Your task to perform on an android device: turn off translation in the chrome app Image 0: 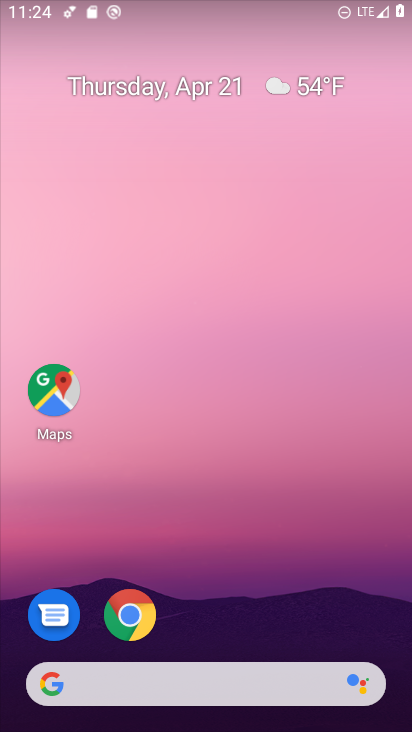
Step 0: click (122, 617)
Your task to perform on an android device: turn off translation in the chrome app Image 1: 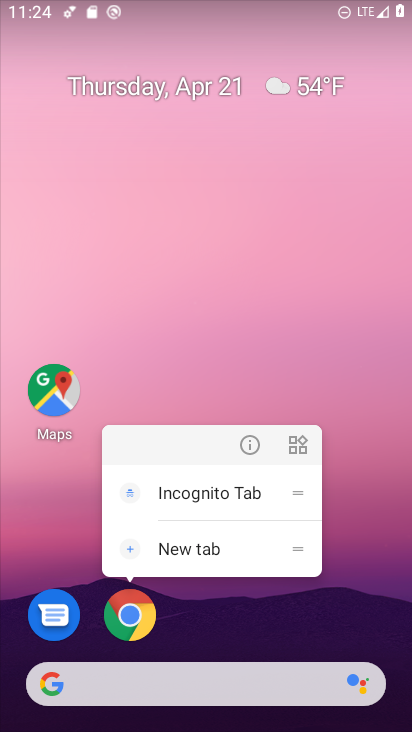
Step 1: click (127, 622)
Your task to perform on an android device: turn off translation in the chrome app Image 2: 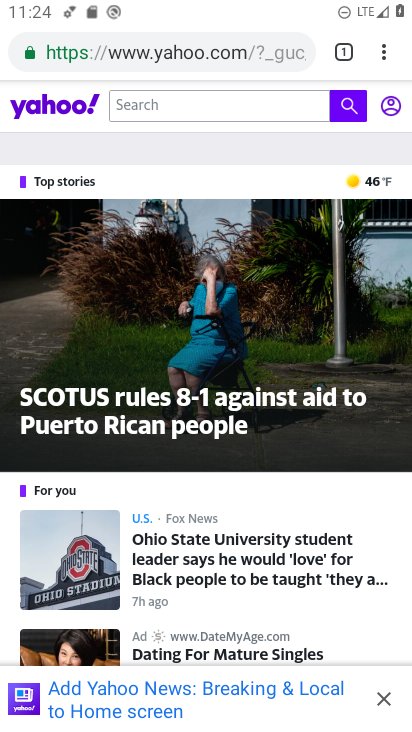
Step 2: click (377, 57)
Your task to perform on an android device: turn off translation in the chrome app Image 3: 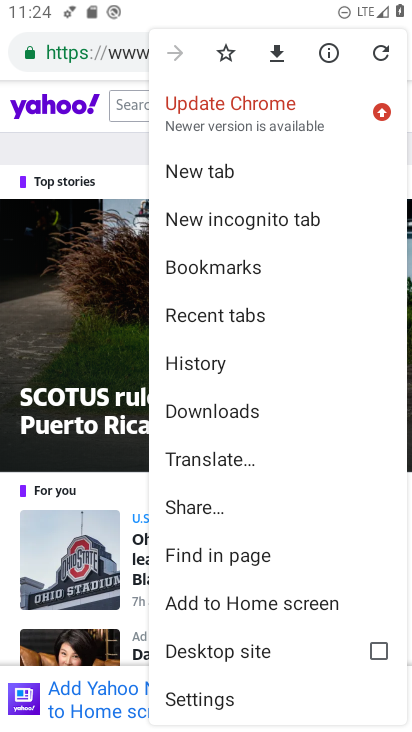
Step 3: click (284, 690)
Your task to perform on an android device: turn off translation in the chrome app Image 4: 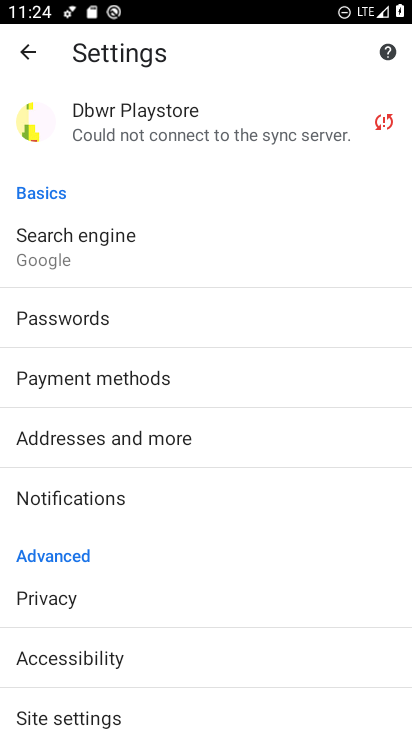
Step 4: drag from (72, 702) to (62, 594)
Your task to perform on an android device: turn off translation in the chrome app Image 5: 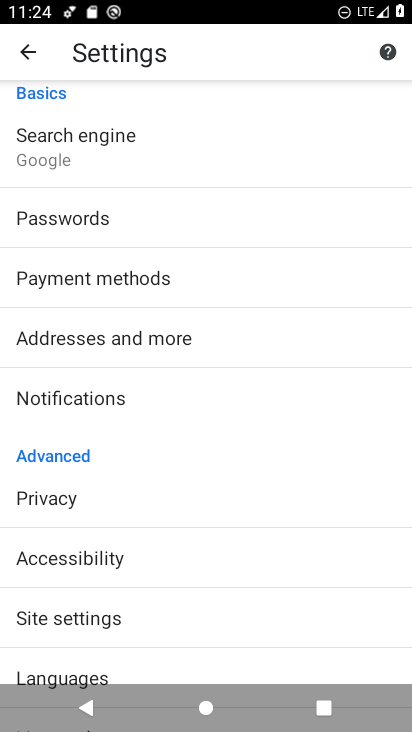
Step 5: drag from (53, 651) to (61, 555)
Your task to perform on an android device: turn off translation in the chrome app Image 6: 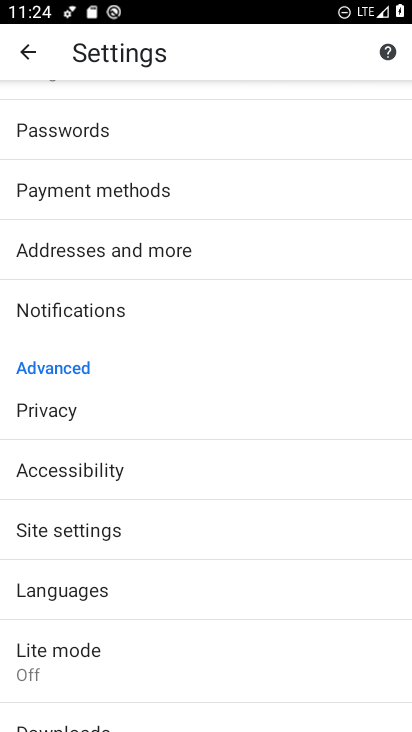
Step 6: click (61, 591)
Your task to perform on an android device: turn off translation in the chrome app Image 7: 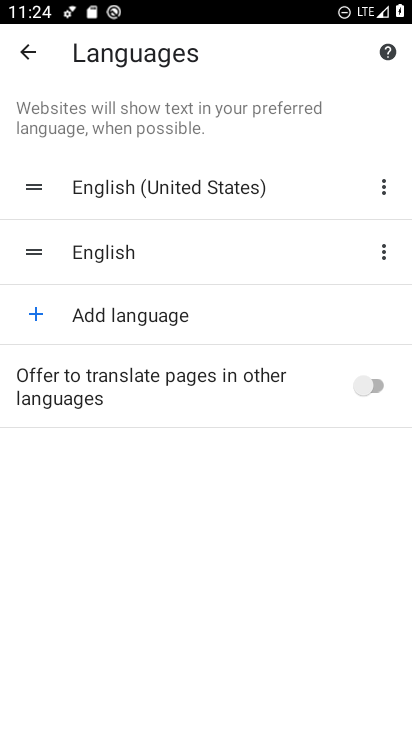
Step 7: task complete